Your task to perform on an android device: add a contact Image 0: 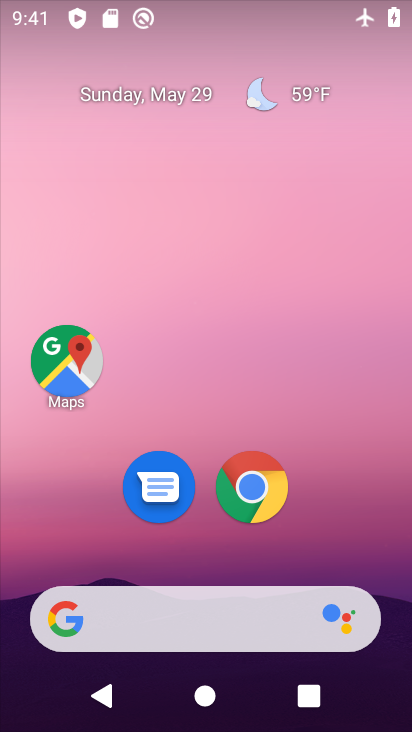
Step 0: drag from (393, 685) to (366, 107)
Your task to perform on an android device: add a contact Image 1: 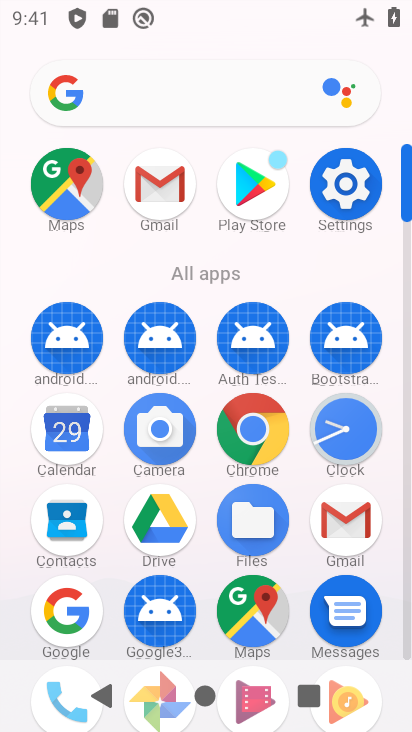
Step 1: click (61, 526)
Your task to perform on an android device: add a contact Image 2: 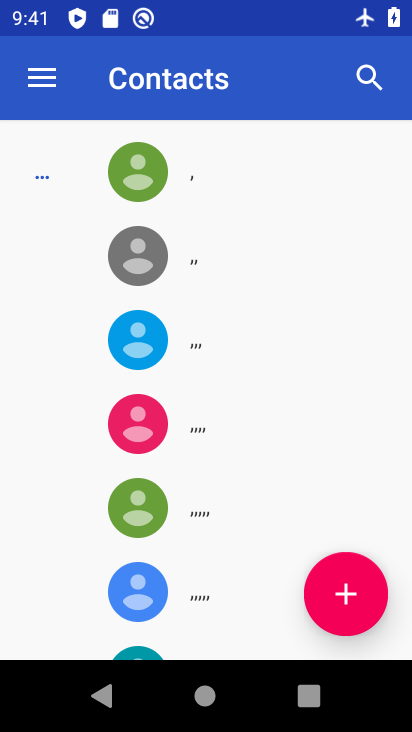
Step 2: click (340, 593)
Your task to perform on an android device: add a contact Image 3: 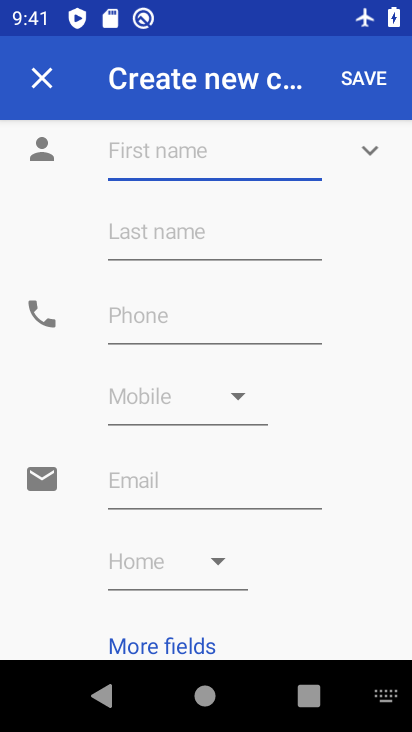
Step 3: type "ffjjhbjbk"
Your task to perform on an android device: add a contact Image 4: 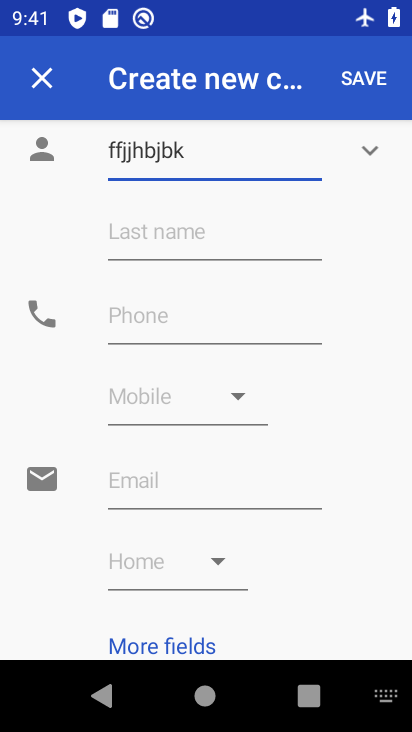
Step 4: click (178, 240)
Your task to perform on an android device: add a contact Image 5: 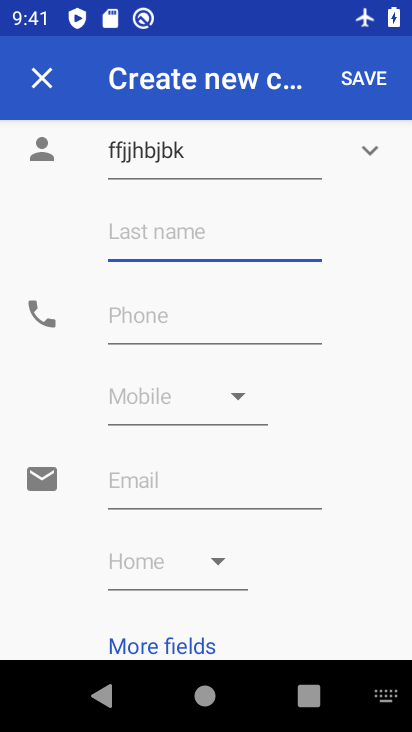
Step 5: type "tdvvhg"
Your task to perform on an android device: add a contact Image 6: 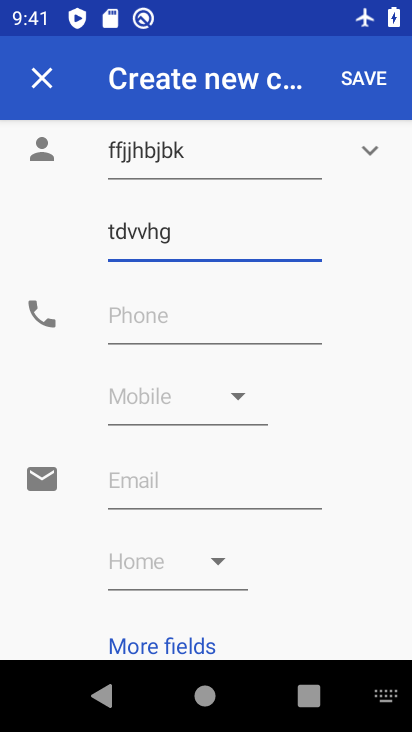
Step 6: click (133, 324)
Your task to perform on an android device: add a contact Image 7: 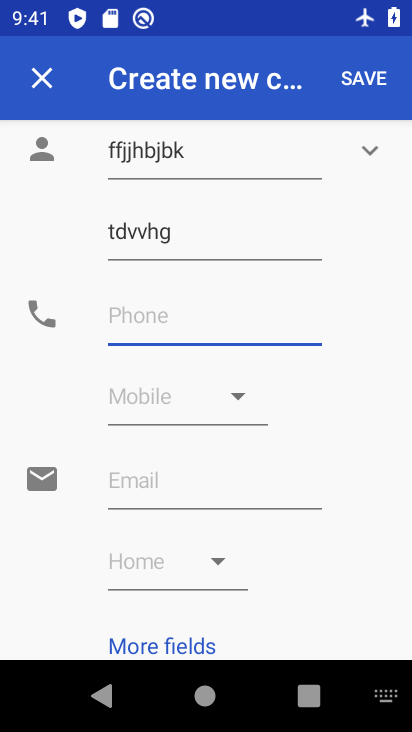
Step 7: type "5675586765"
Your task to perform on an android device: add a contact Image 8: 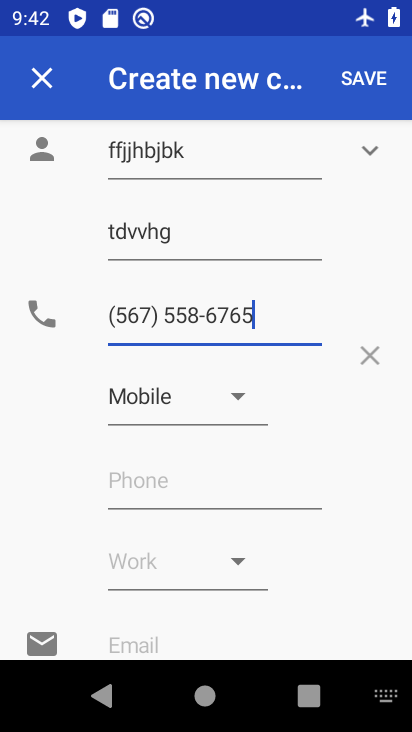
Step 8: click (369, 78)
Your task to perform on an android device: add a contact Image 9: 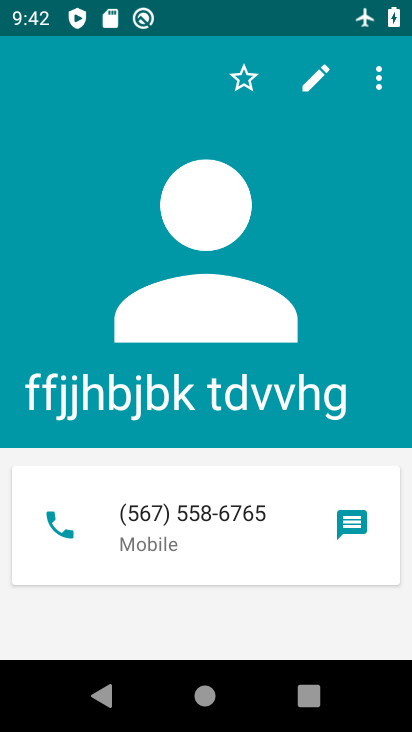
Step 9: task complete